Your task to perform on an android device: turn on priority inbox in the gmail app Image 0: 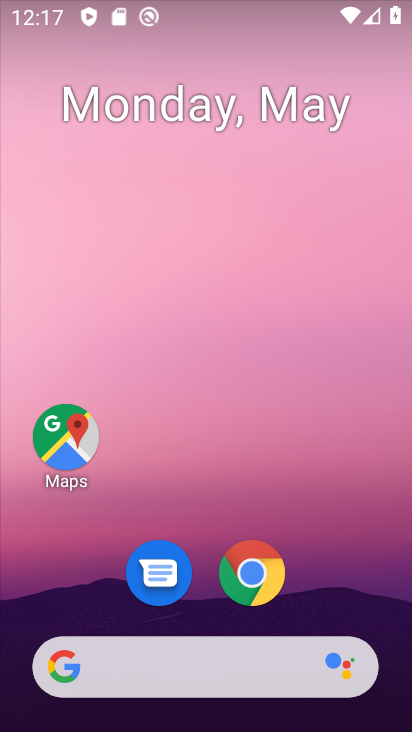
Step 0: drag from (197, 510) to (187, 350)
Your task to perform on an android device: turn on priority inbox in the gmail app Image 1: 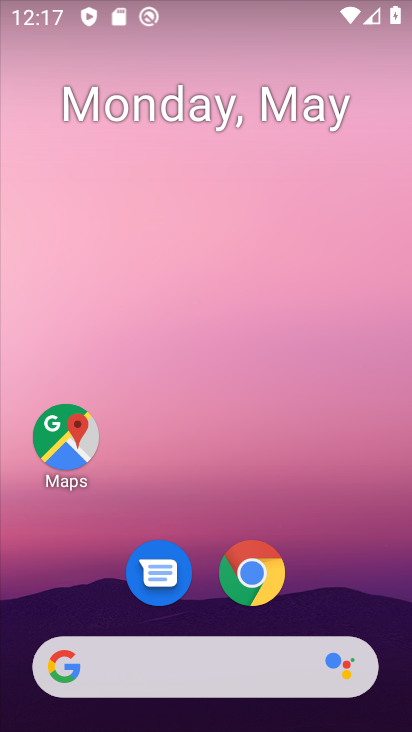
Step 1: drag from (220, 615) to (206, 177)
Your task to perform on an android device: turn on priority inbox in the gmail app Image 2: 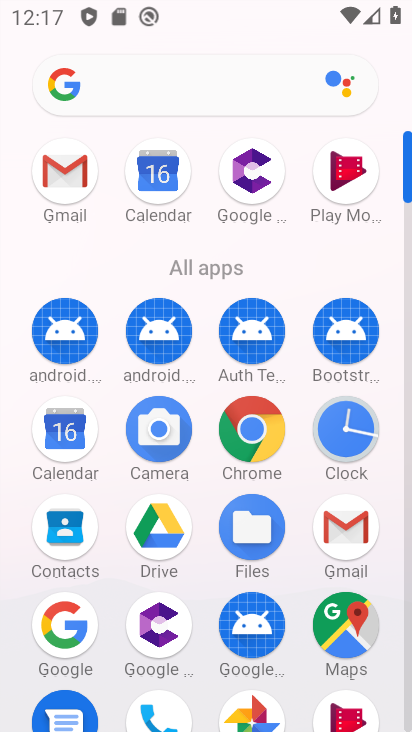
Step 2: click (85, 181)
Your task to perform on an android device: turn on priority inbox in the gmail app Image 3: 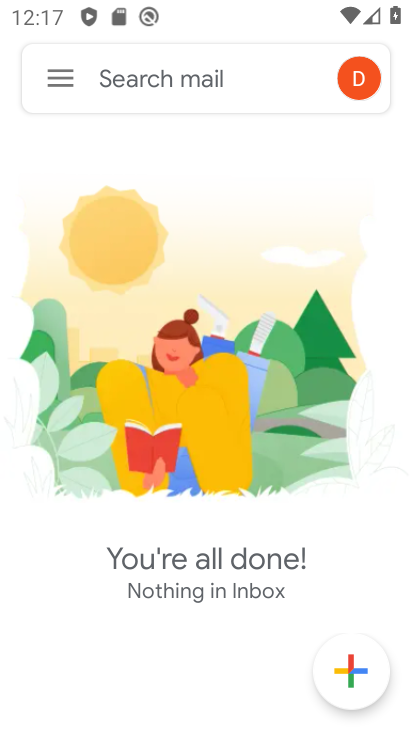
Step 3: click (81, 89)
Your task to perform on an android device: turn on priority inbox in the gmail app Image 4: 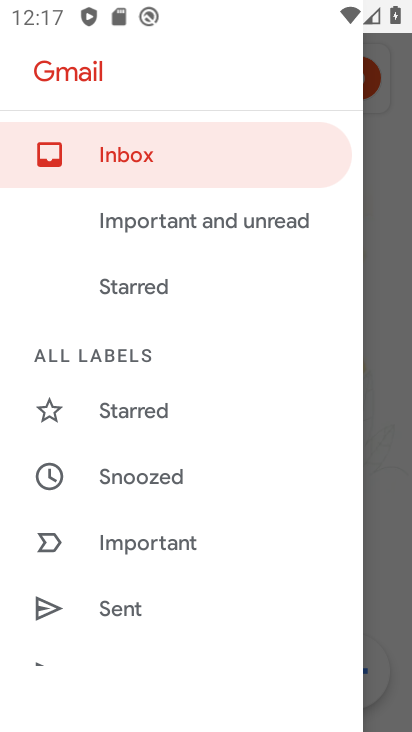
Step 4: drag from (128, 613) to (171, 276)
Your task to perform on an android device: turn on priority inbox in the gmail app Image 5: 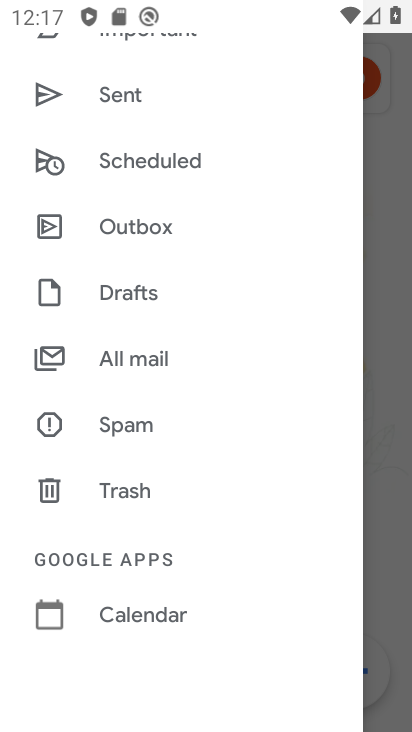
Step 5: drag from (186, 495) to (198, 181)
Your task to perform on an android device: turn on priority inbox in the gmail app Image 6: 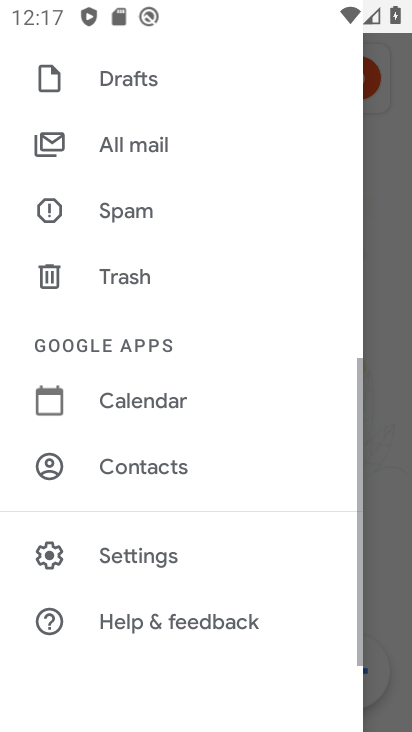
Step 6: click (108, 550)
Your task to perform on an android device: turn on priority inbox in the gmail app Image 7: 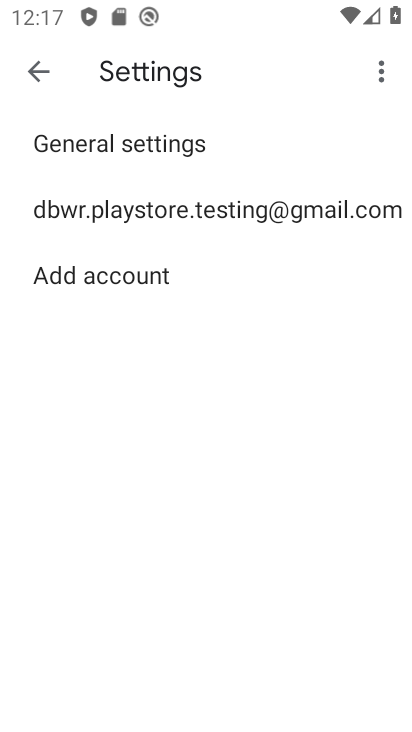
Step 7: click (173, 221)
Your task to perform on an android device: turn on priority inbox in the gmail app Image 8: 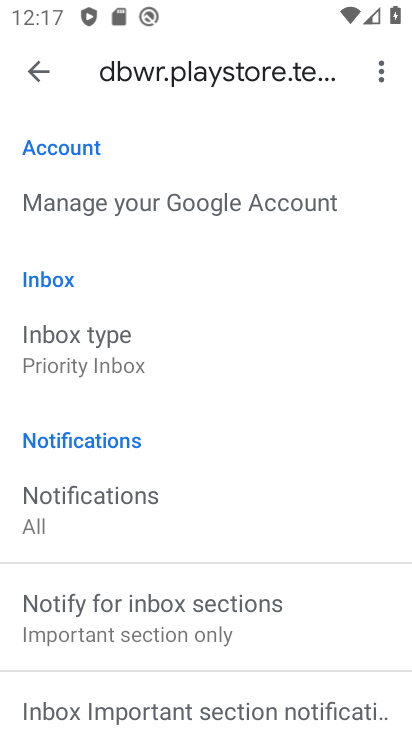
Step 8: task complete